Your task to perform on an android device: toggle notifications settings in the gmail app Image 0: 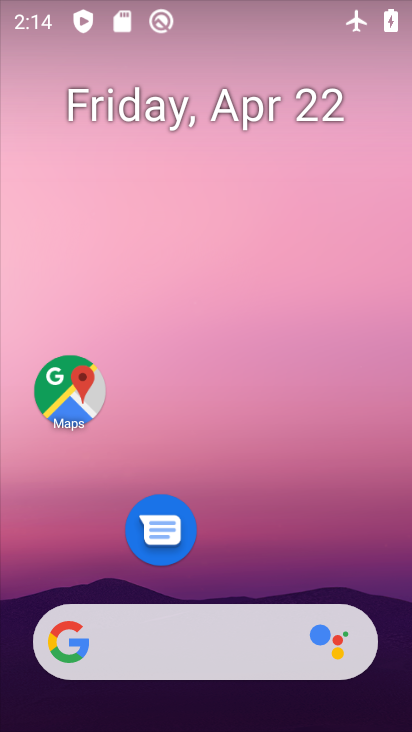
Step 0: drag from (261, 505) to (261, 62)
Your task to perform on an android device: toggle notifications settings in the gmail app Image 1: 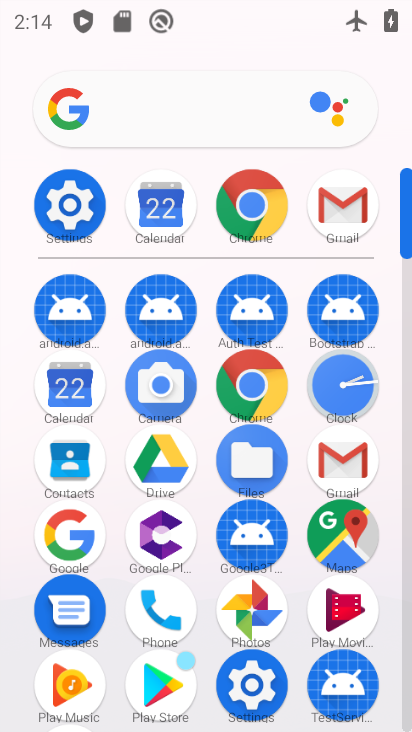
Step 1: click (344, 214)
Your task to perform on an android device: toggle notifications settings in the gmail app Image 2: 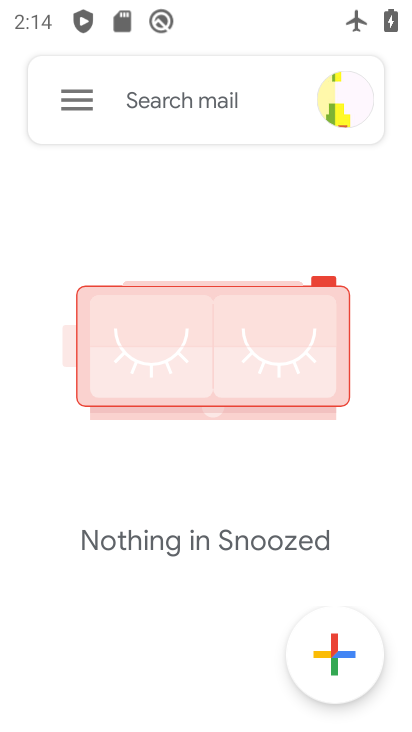
Step 2: click (78, 91)
Your task to perform on an android device: toggle notifications settings in the gmail app Image 3: 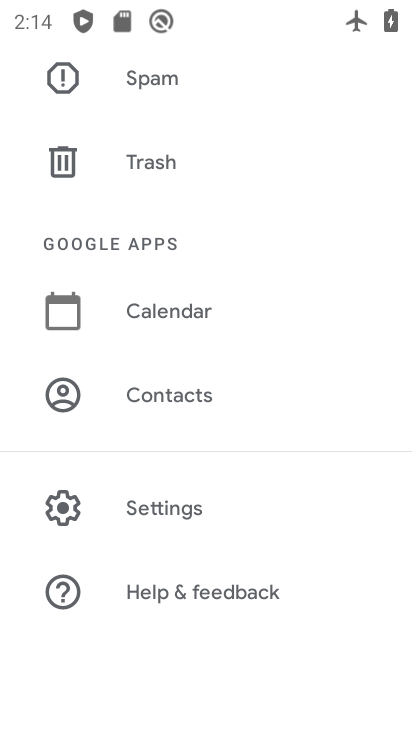
Step 3: click (184, 493)
Your task to perform on an android device: toggle notifications settings in the gmail app Image 4: 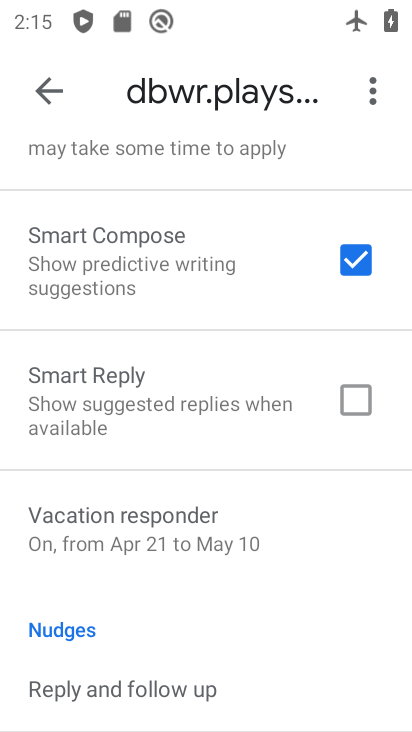
Step 4: drag from (199, 206) to (250, 719)
Your task to perform on an android device: toggle notifications settings in the gmail app Image 5: 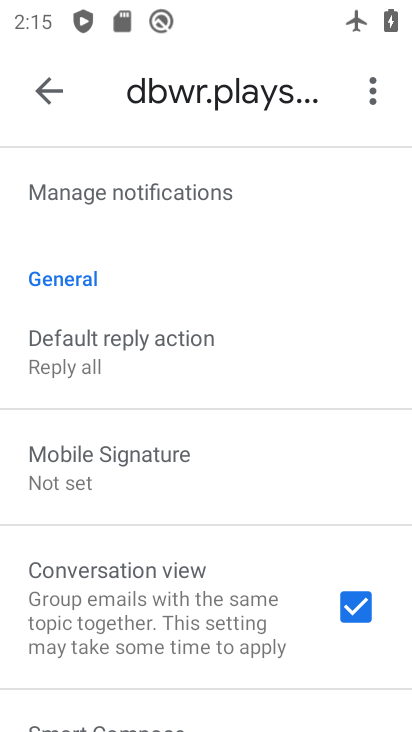
Step 5: drag from (155, 224) to (169, 525)
Your task to perform on an android device: toggle notifications settings in the gmail app Image 6: 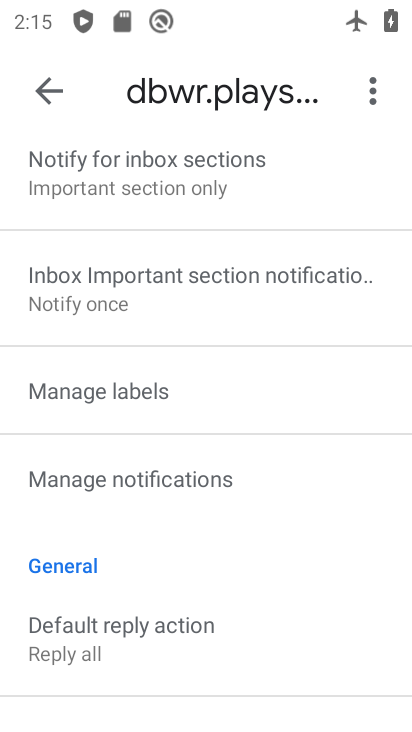
Step 6: click (136, 474)
Your task to perform on an android device: toggle notifications settings in the gmail app Image 7: 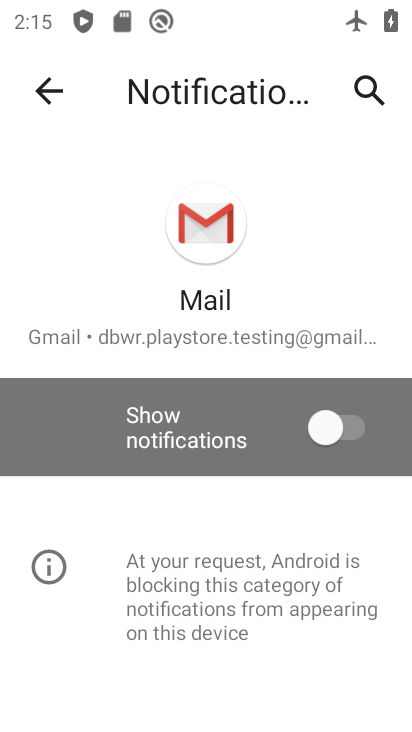
Step 7: click (328, 438)
Your task to perform on an android device: toggle notifications settings in the gmail app Image 8: 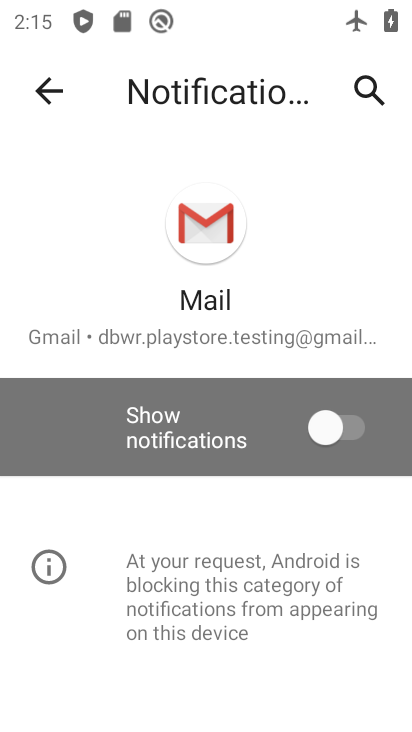
Step 8: click (325, 420)
Your task to perform on an android device: toggle notifications settings in the gmail app Image 9: 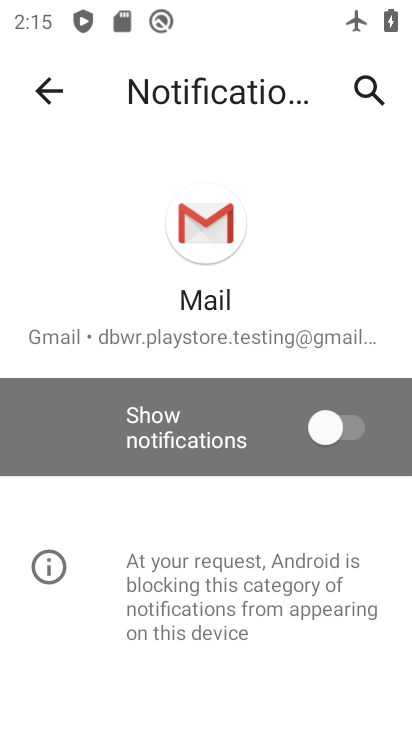
Step 9: click (316, 432)
Your task to perform on an android device: toggle notifications settings in the gmail app Image 10: 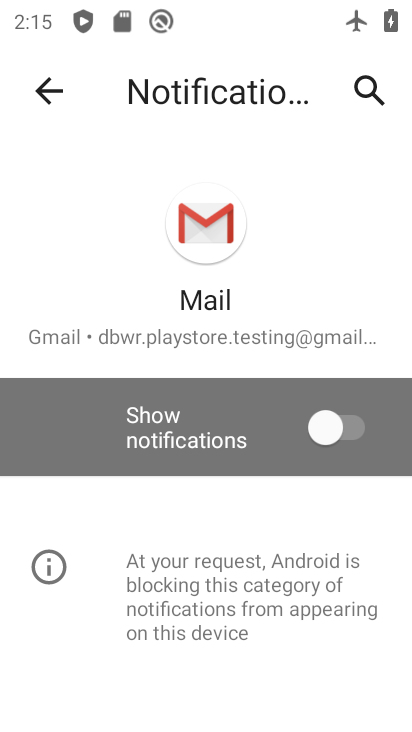
Step 10: click (47, 88)
Your task to perform on an android device: toggle notifications settings in the gmail app Image 11: 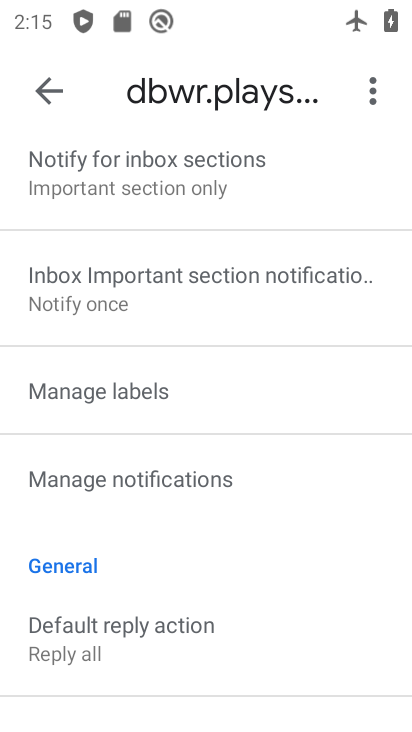
Step 11: task complete